Your task to perform on an android device: turn off notifications settings in the gmail app Image 0: 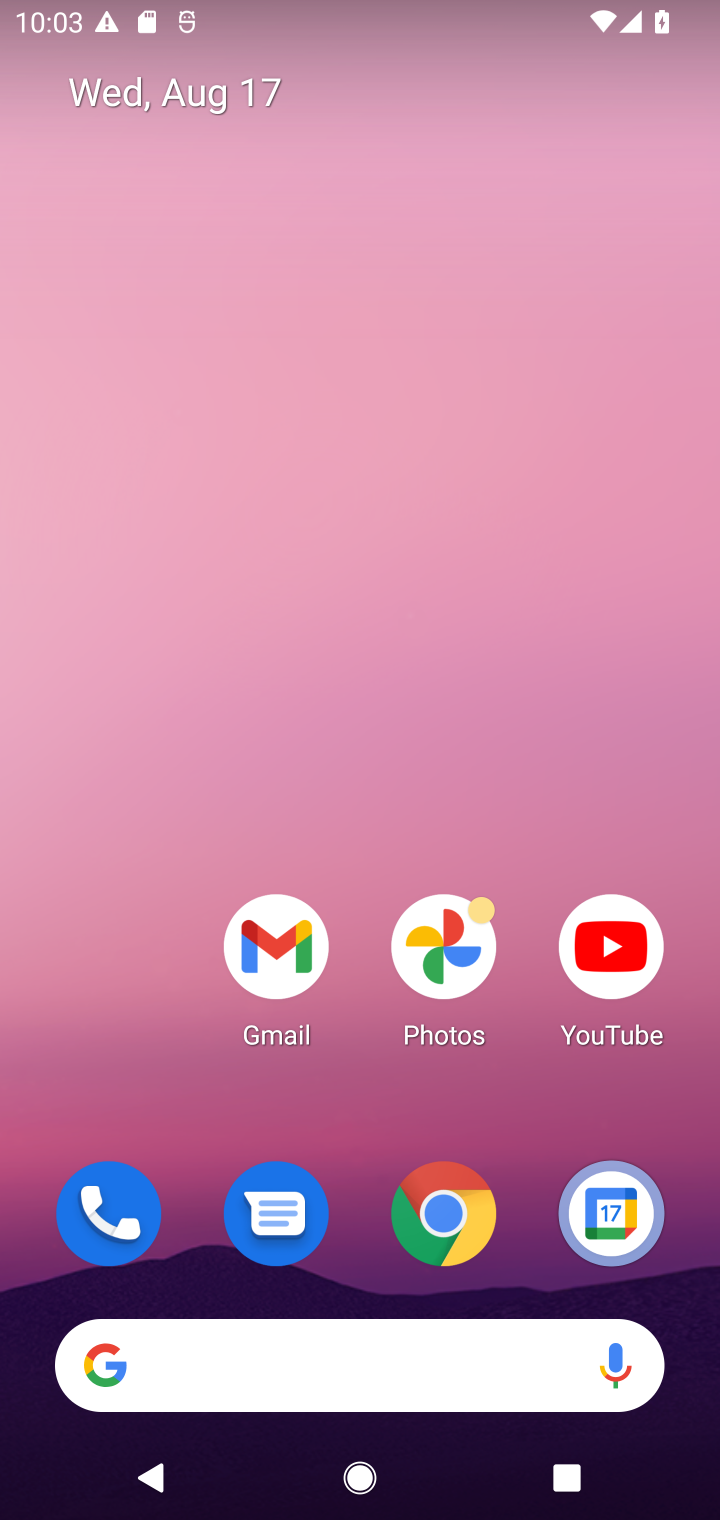
Step 0: drag from (205, 1199) to (175, 120)
Your task to perform on an android device: turn off notifications settings in the gmail app Image 1: 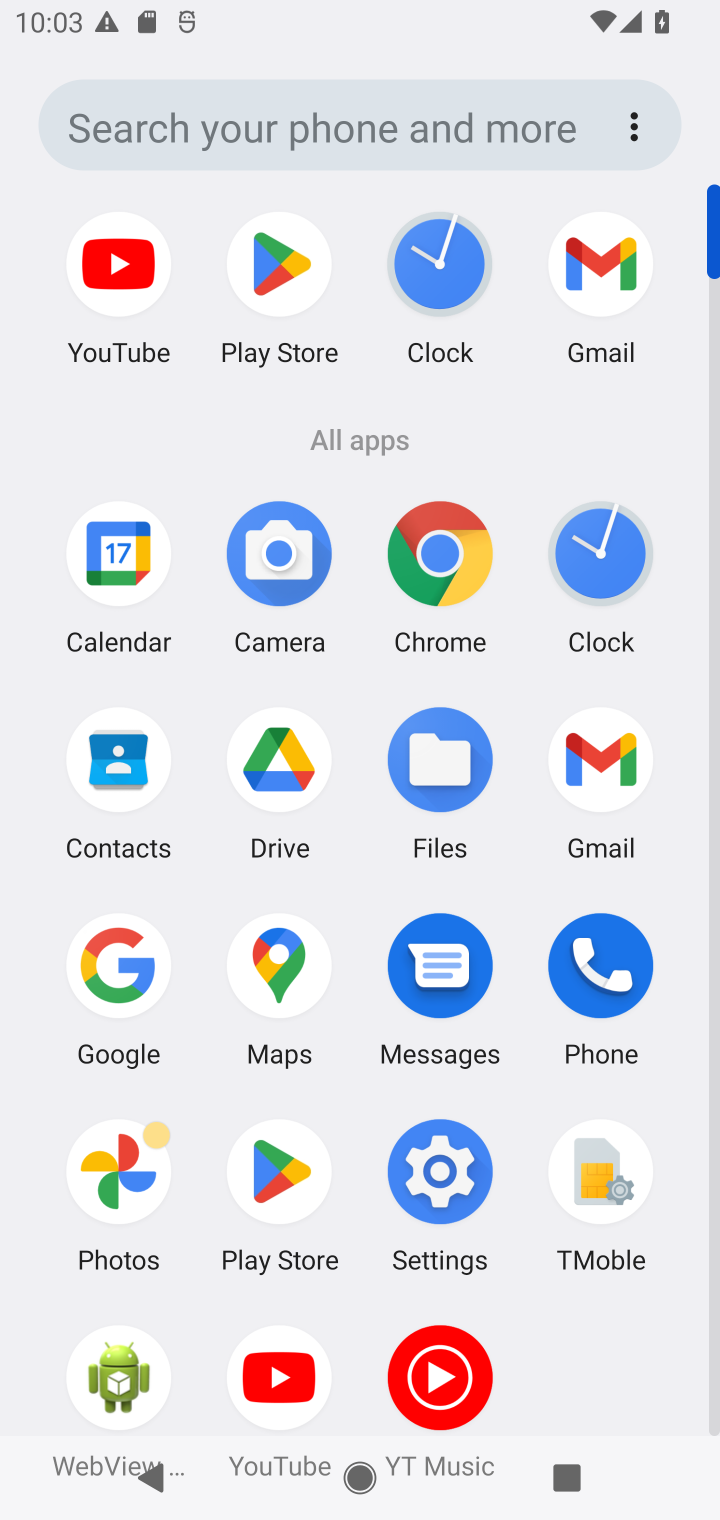
Step 1: click (619, 792)
Your task to perform on an android device: turn off notifications settings in the gmail app Image 2: 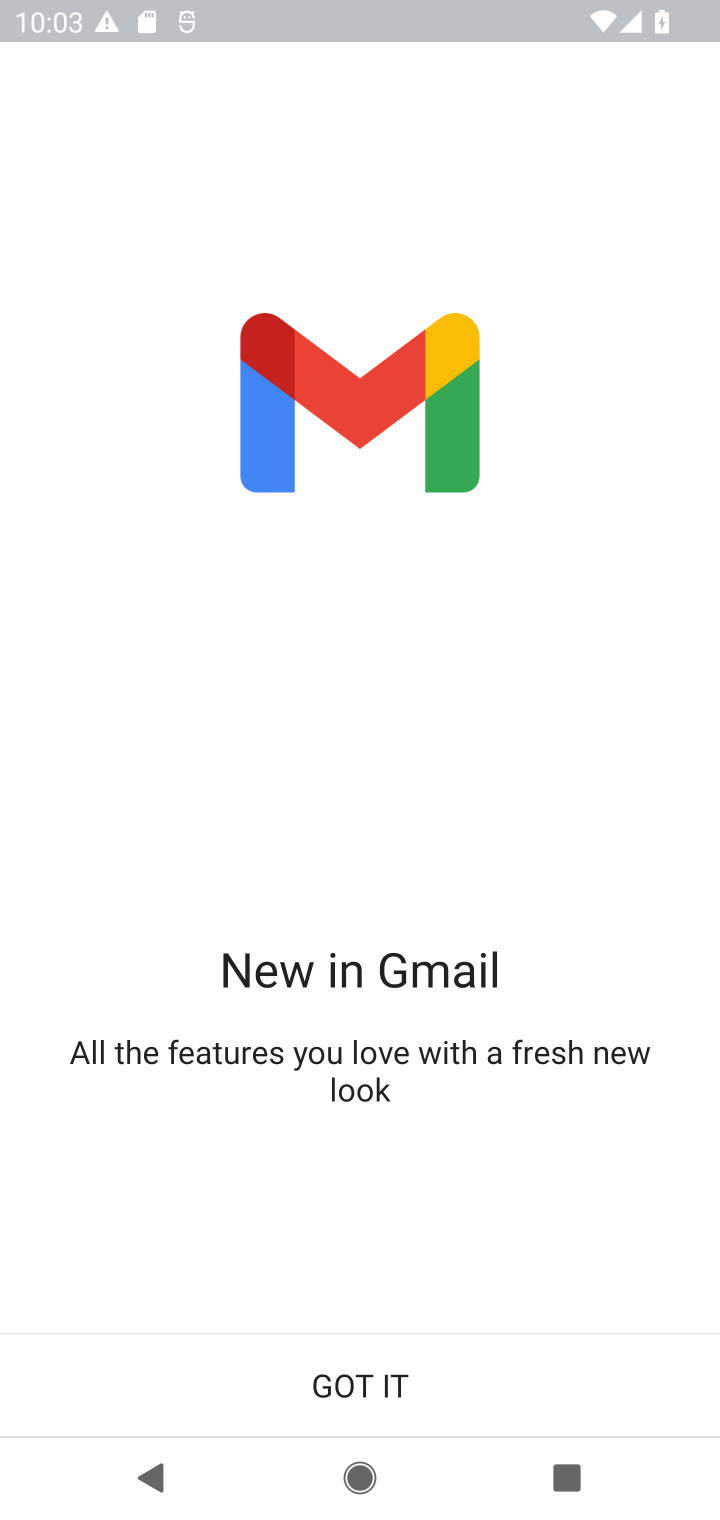
Step 2: click (290, 1351)
Your task to perform on an android device: turn off notifications settings in the gmail app Image 3: 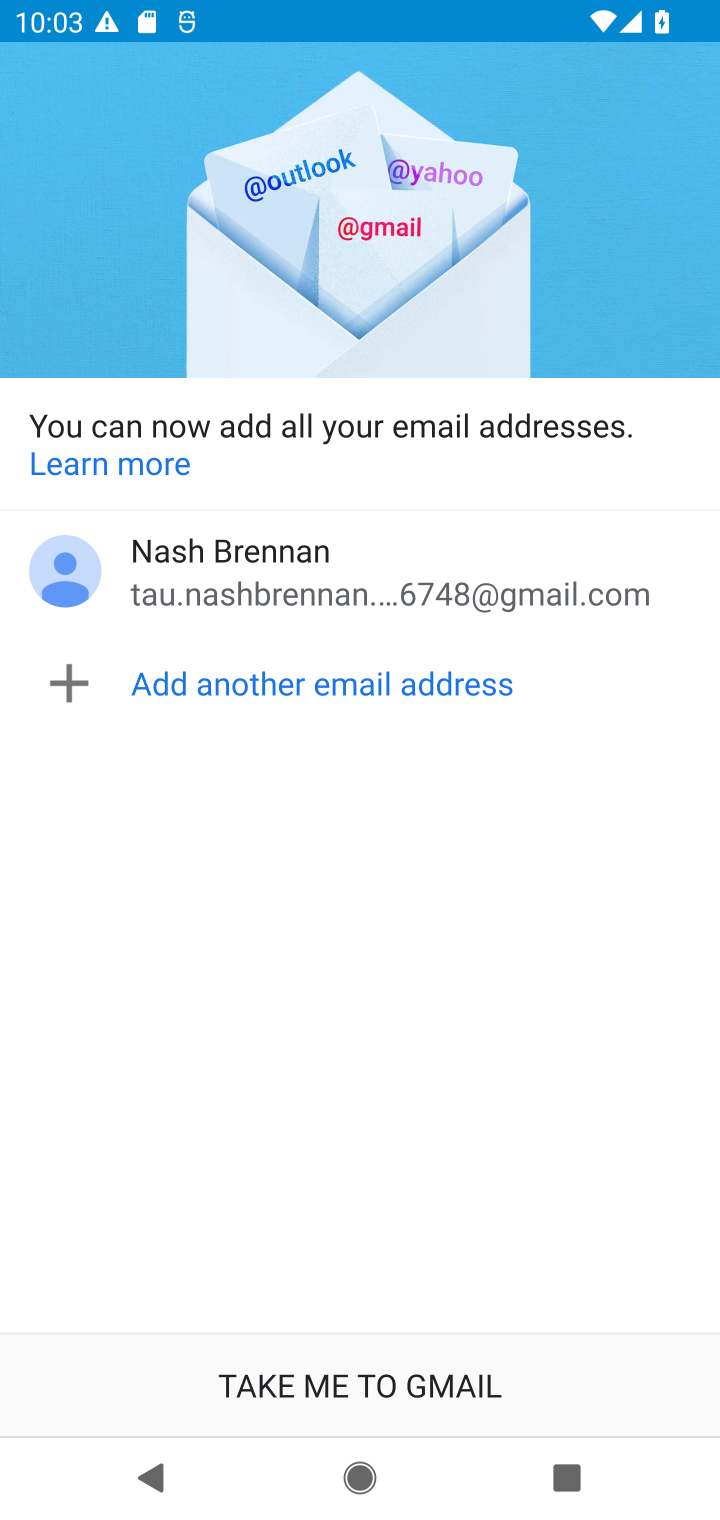
Step 3: click (403, 1378)
Your task to perform on an android device: turn off notifications settings in the gmail app Image 4: 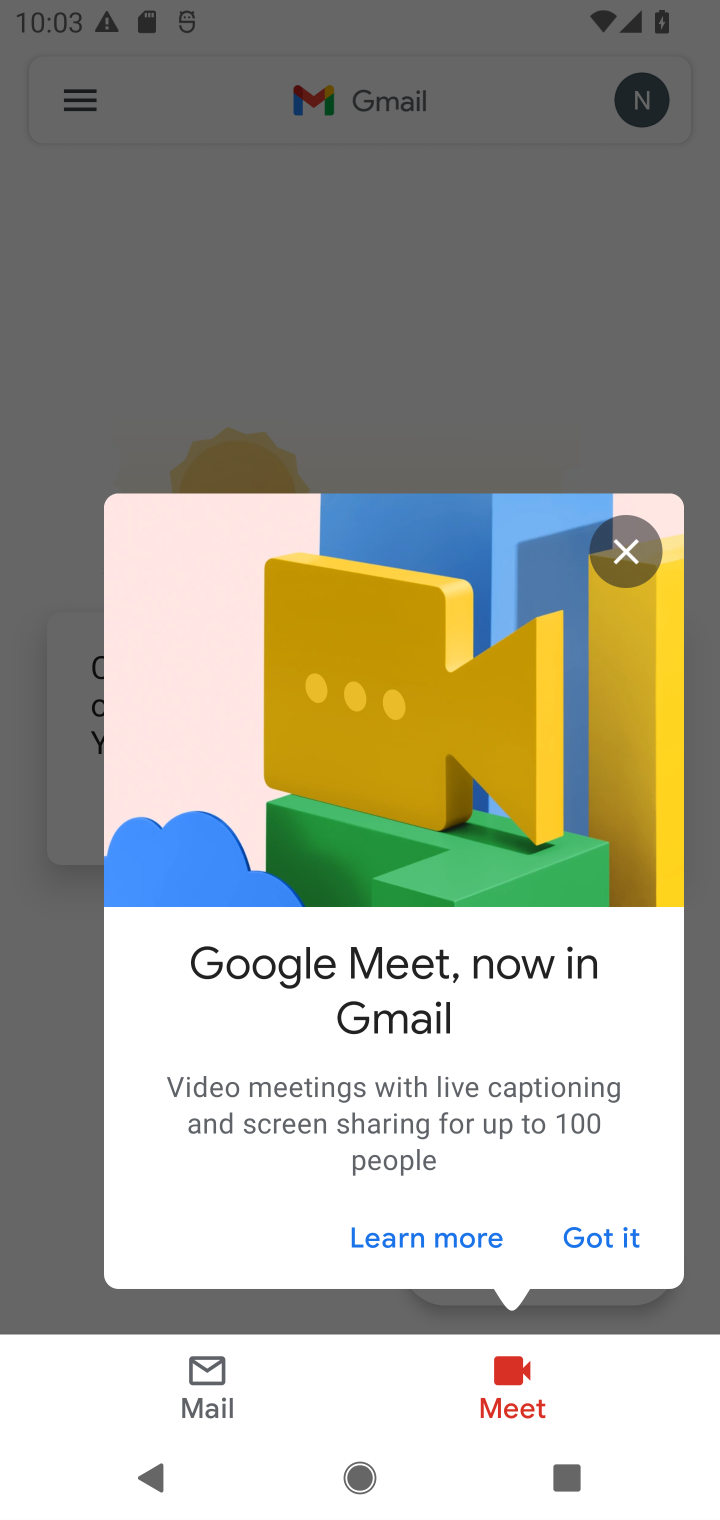
Step 4: click (631, 1252)
Your task to perform on an android device: turn off notifications settings in the gmail app Image 5: 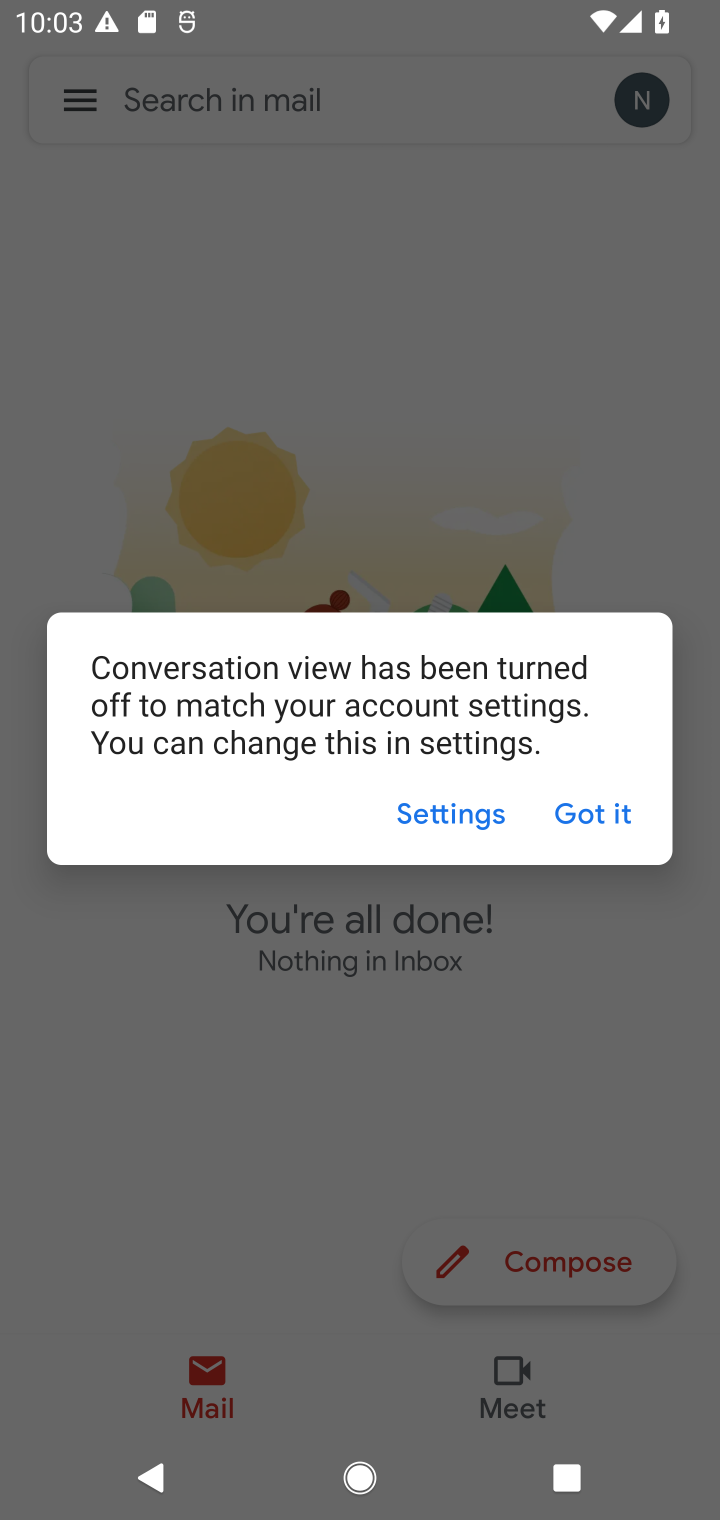
Step 5: click (598, 811)
Your task to perform on an android device: turn off notifications settings in the gmail app Image 6: 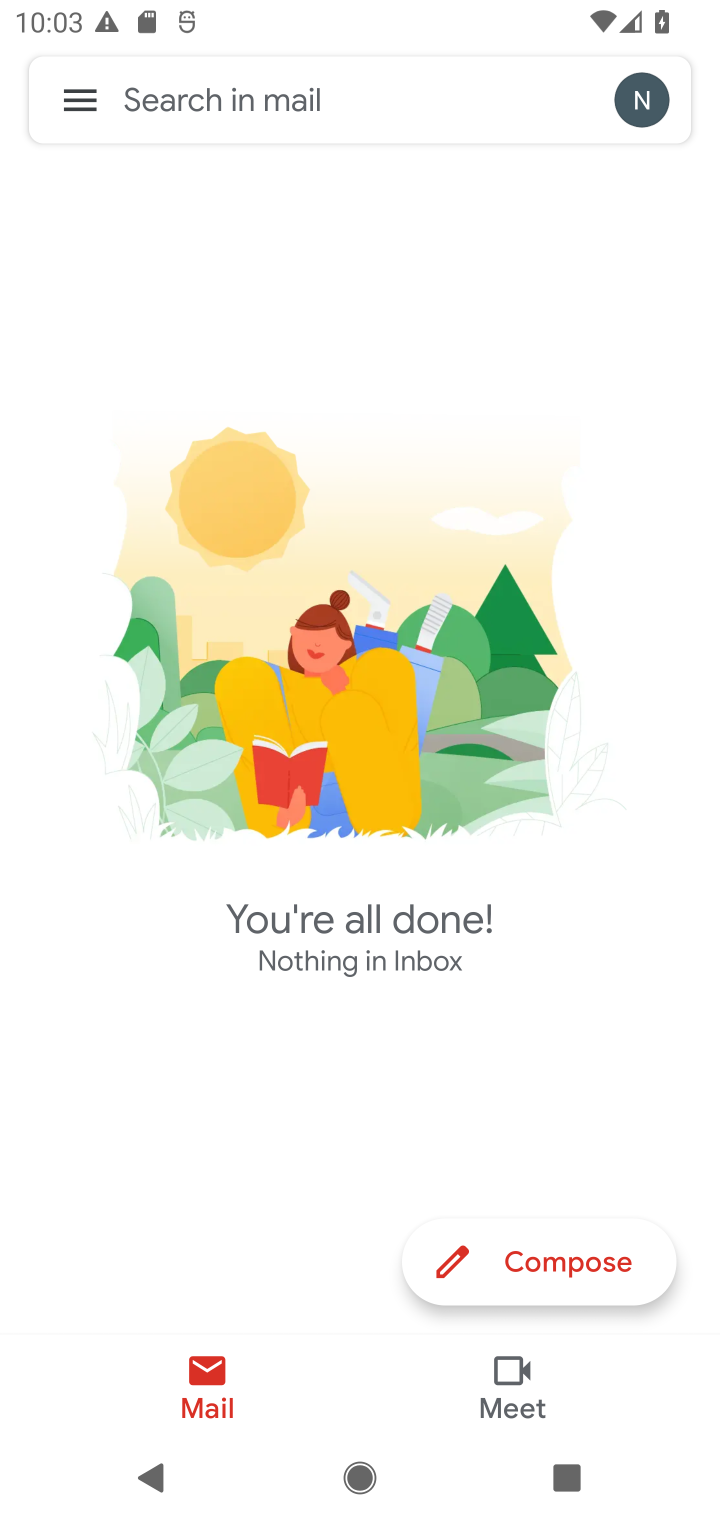
Step 6: click (66, 96)
Your task to perform on an android device: turn off notifications settings in the gmail app Image 7: 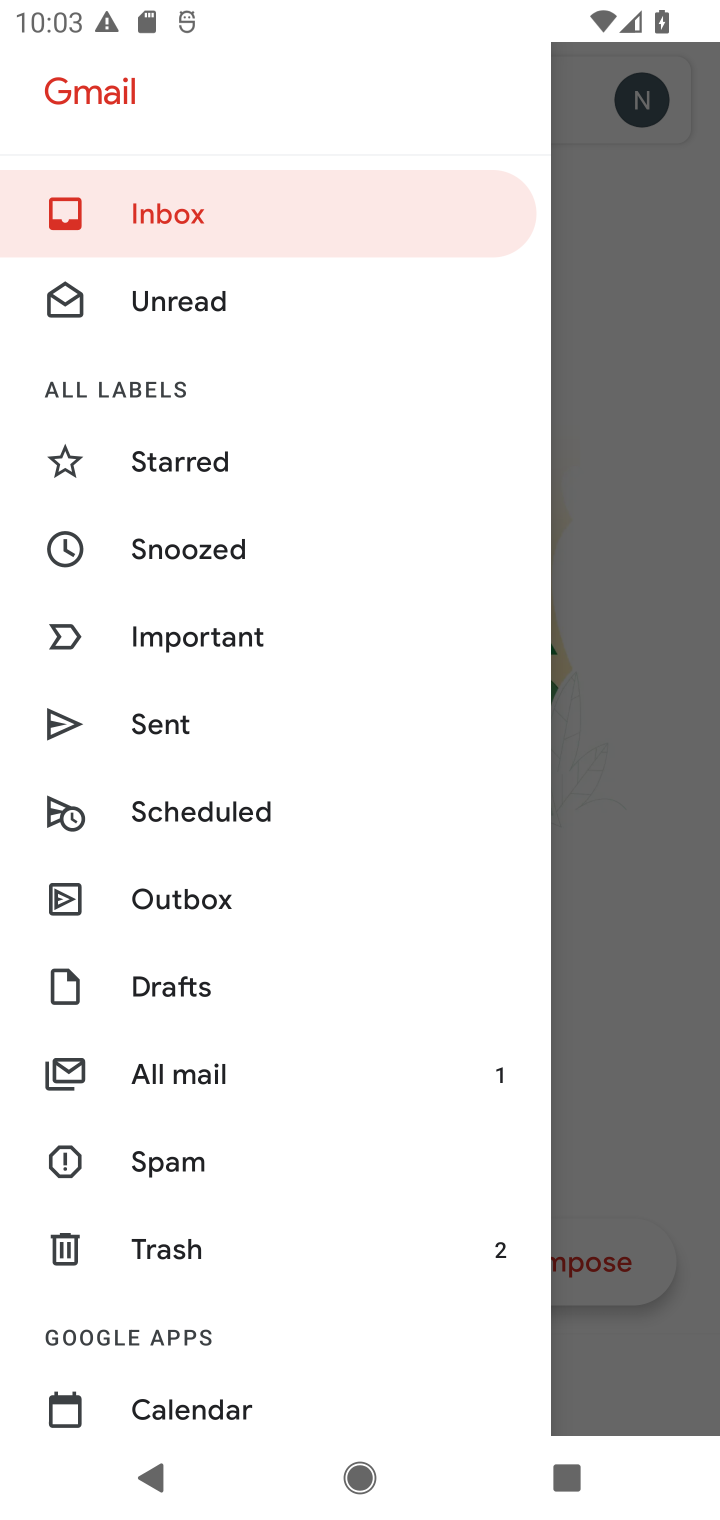
Step 7: drag from (267, 1259) to (237, 37)
Your task to perform on an android device: turn off notifications settings in the gmail app Image 8: 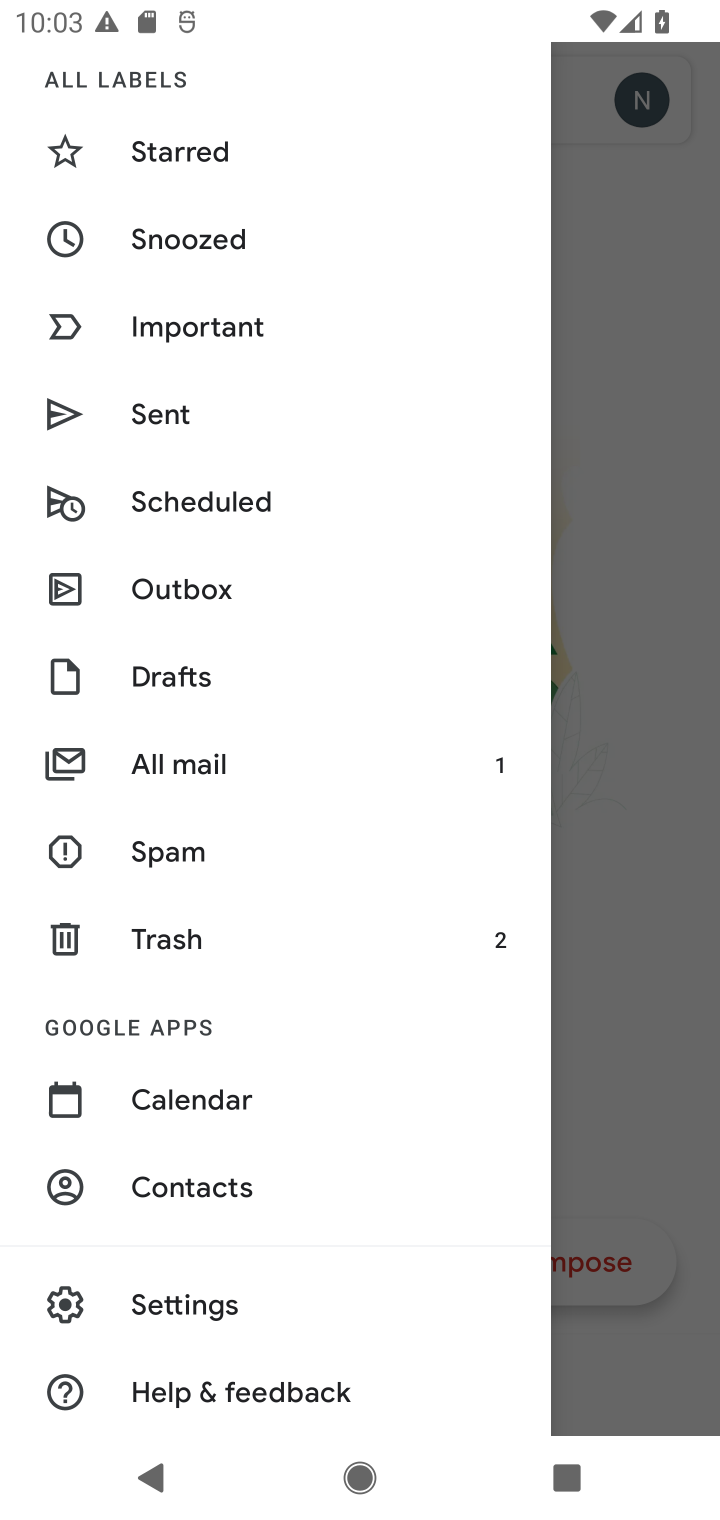
Step 8: click (221, 1305)
Your task to perform on an android device: turn off notifications settings in the gmail app Image 9: 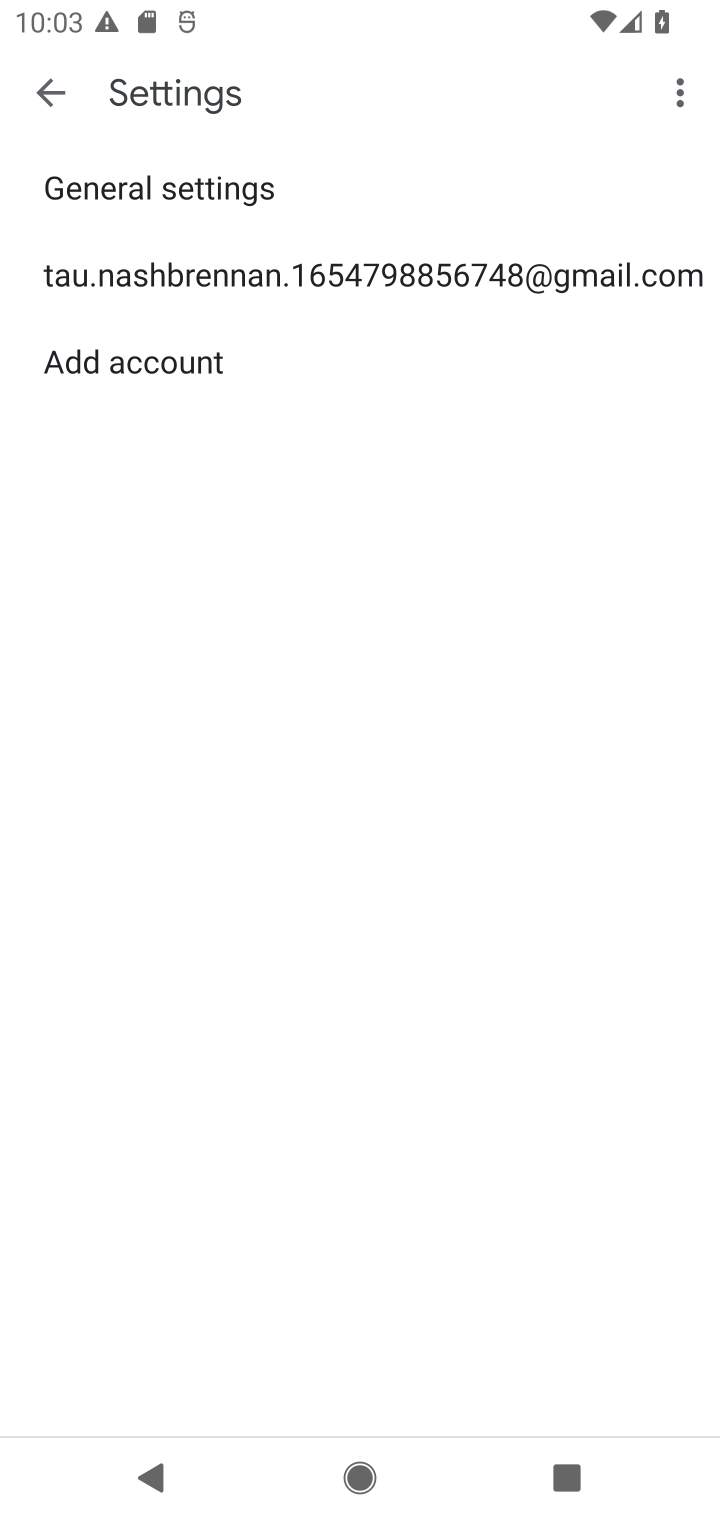
Step 9: click (269, 284)
Your task to perform on an android device: turn off notifications settings in the gmail app Image 10: 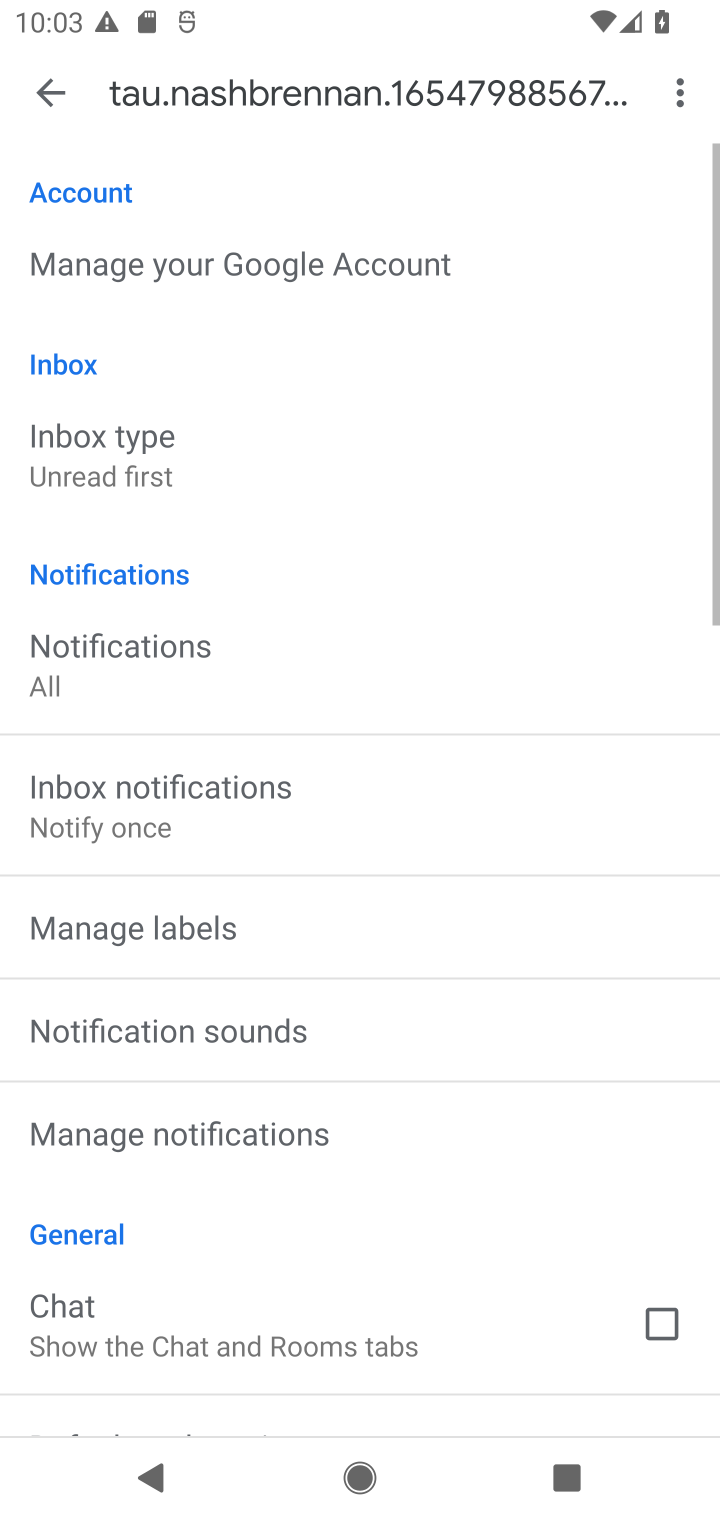
Step 10: click (171, 685)
Your task to perform on an android device: turn off notifications settings in the gmail app Image 11: 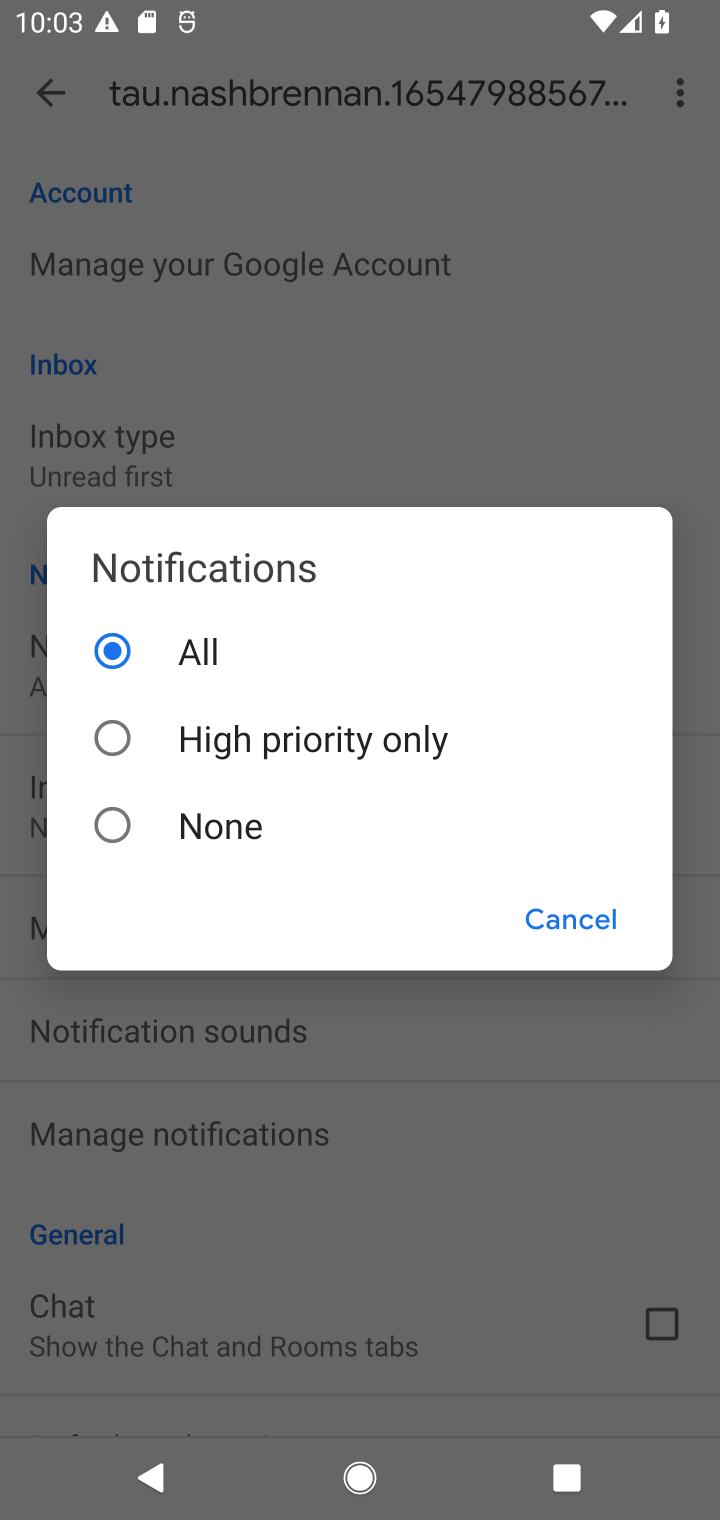
Step 11: click (198, 836)
Your task to perform on an android device: turn off notifications settings in the gmail app Image 12: 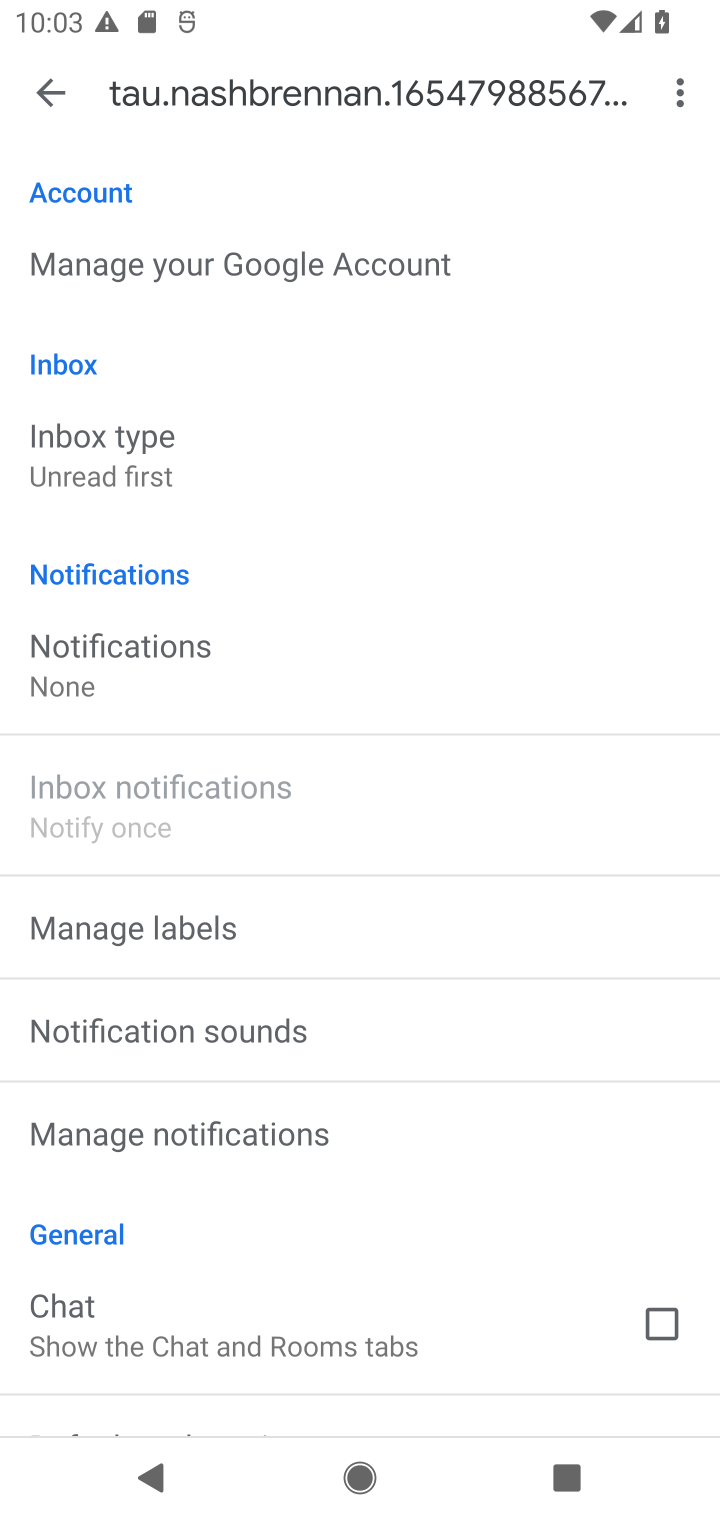
Step 12: task complete